Your task to perform on an android device: delete location history Image 0: 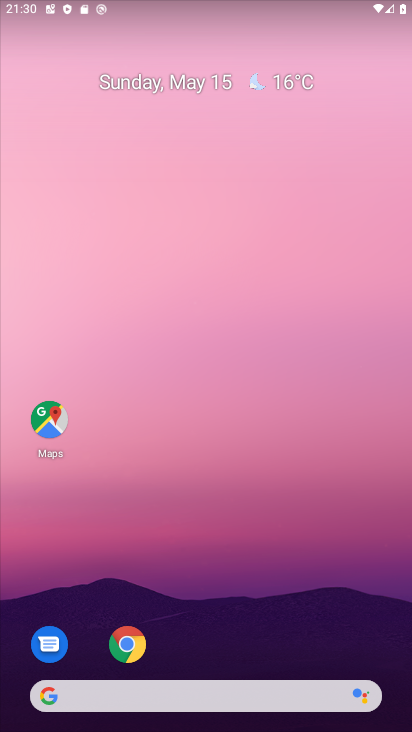
Step 0: click (42, 408)
Your task to perform on an android device: delete location history Image 1: 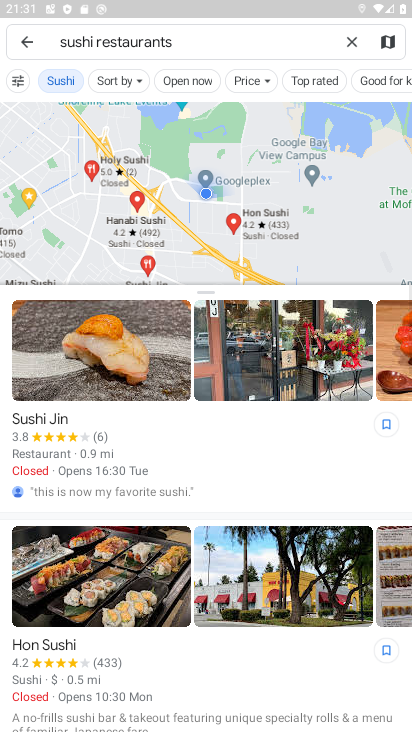
Step 1: click (27, 42)
Your task to perform on an android device: delete location history Image 2: 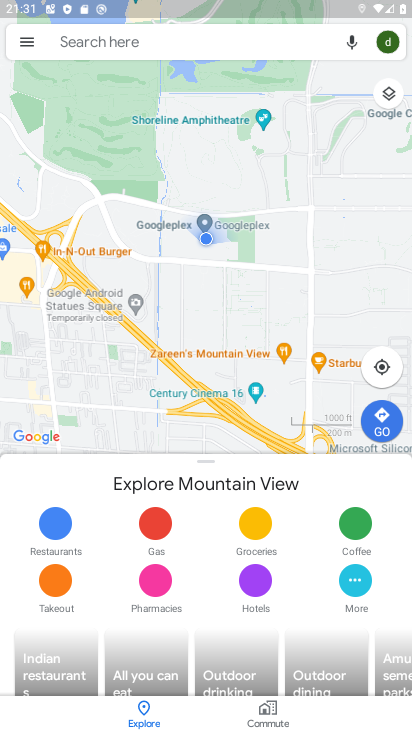
Step 2: click (25, 41)
Your task to perform on an android device: delete location history Image 3: 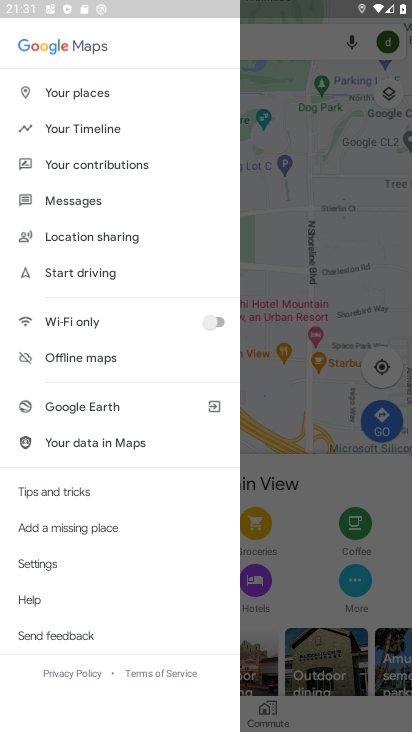
Step 3: click (103, 126)
Your task to perform on an android device: delete location history Image 4: 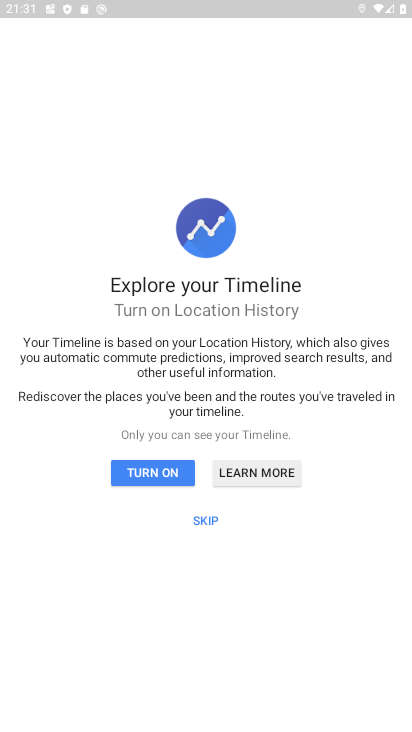
Step 4: click (210, 522)
Your task to perform on an android device: delete location history Image 5: 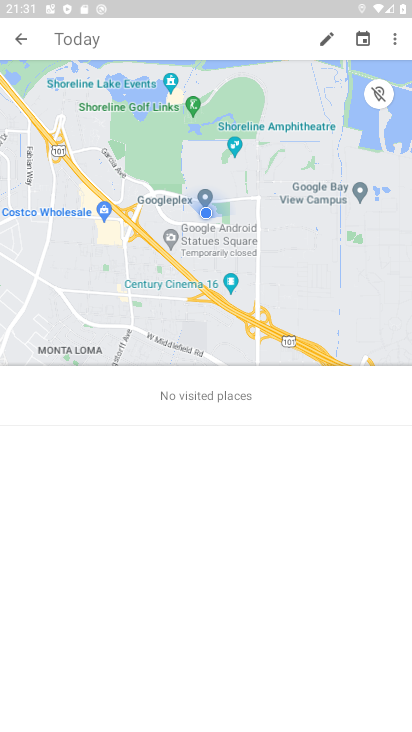
Step 5: click (394, 42)
Your task to perform on an android device: delete location history Image 6: 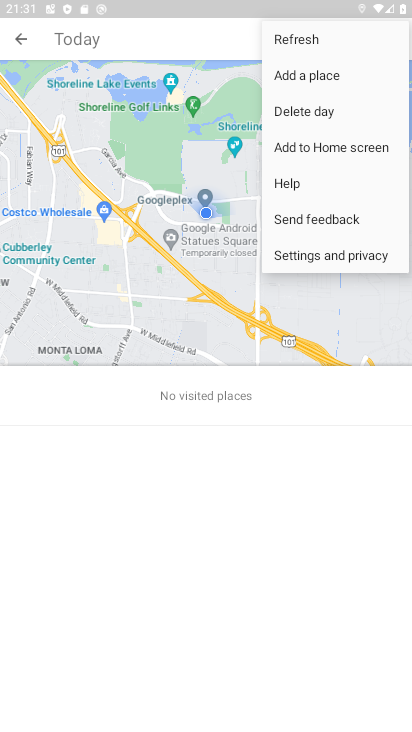
Step 6: click (316, 254)
Your task to perform on an android device: delete location history Image 7: 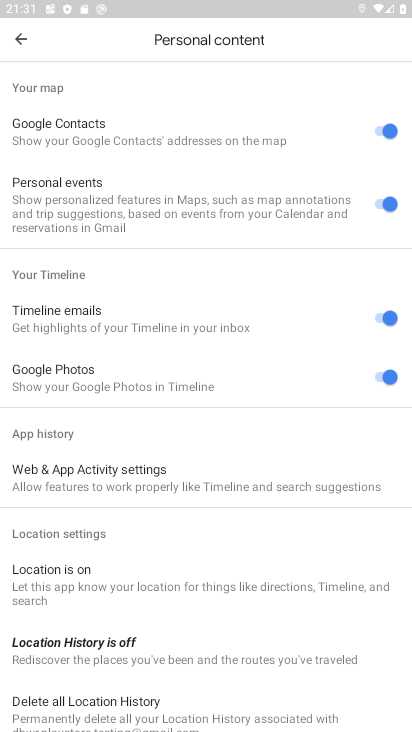
Step 7: click (112, 702)
Your task to perform on an android device: delete location history Image 8: 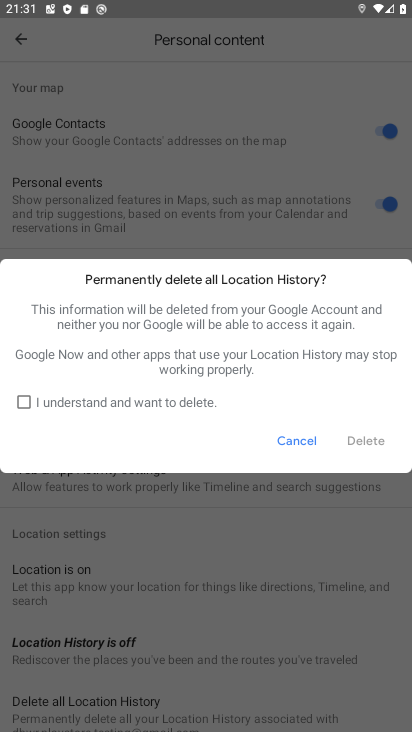
Step 8: click (17, 401)
Your task to perform on an android device: delete location history Image 9: 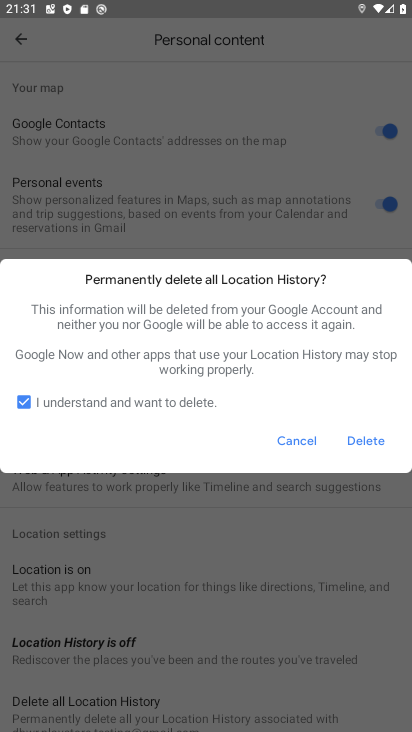
Step 9: click (367, 442)
Your task to perform on an android device: delete location history Image 10: 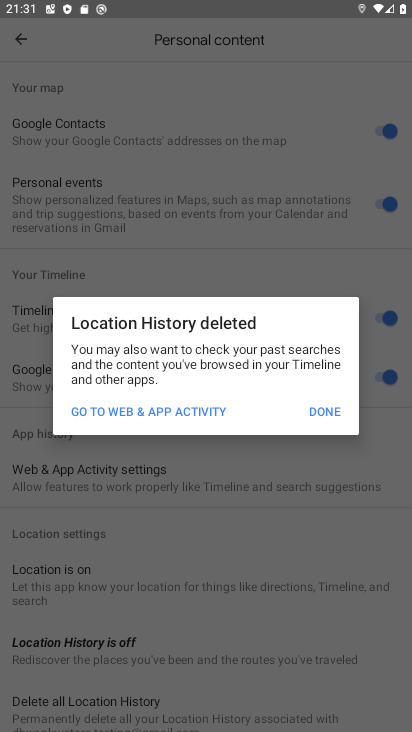
Step 10: task complete